Your task to perform on an android device: Go to eBay Image 0: 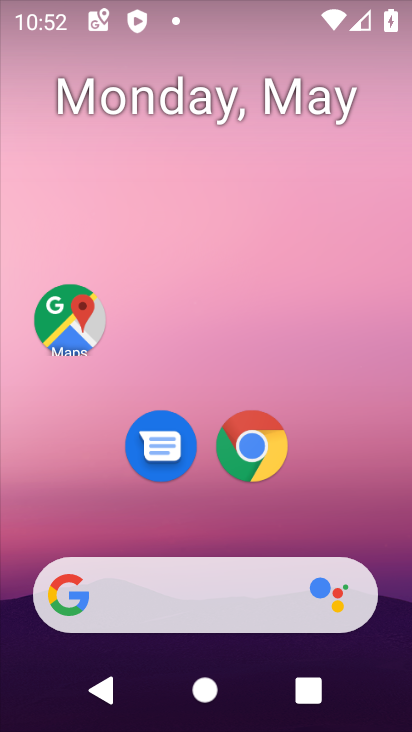
Step 0: click (247, 456)
Your task to perform on an android device: Go to eBay Image 1: 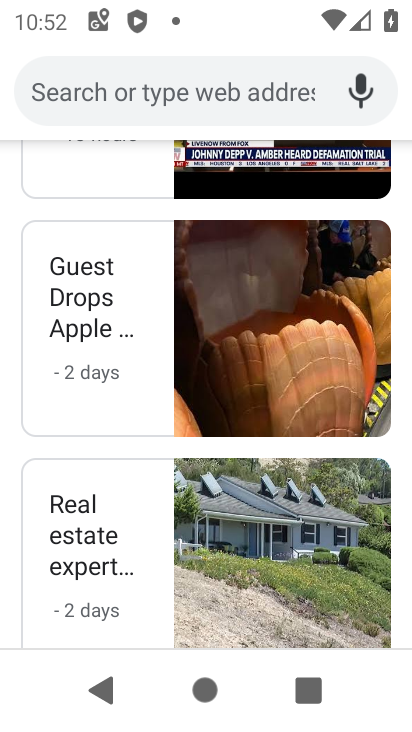
Step 1: drag from (125, 211) to (126, 676)
Your task to perform on an android device: Go to eBay Image 2: 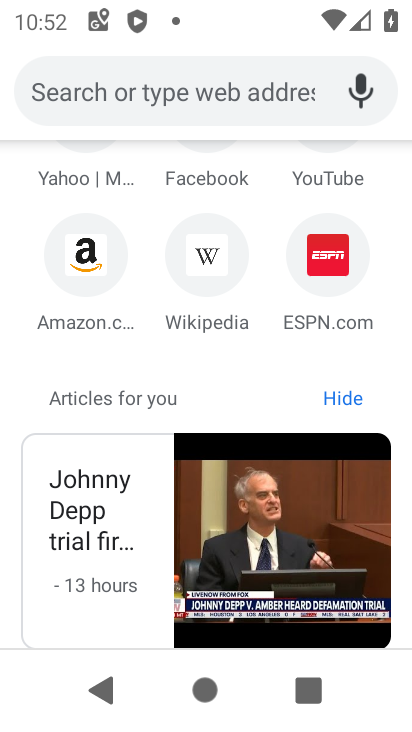
Step 2: drag from (162, 190) to (207, 712)
Your task to perform on an android device: Go to eBay Image 3: 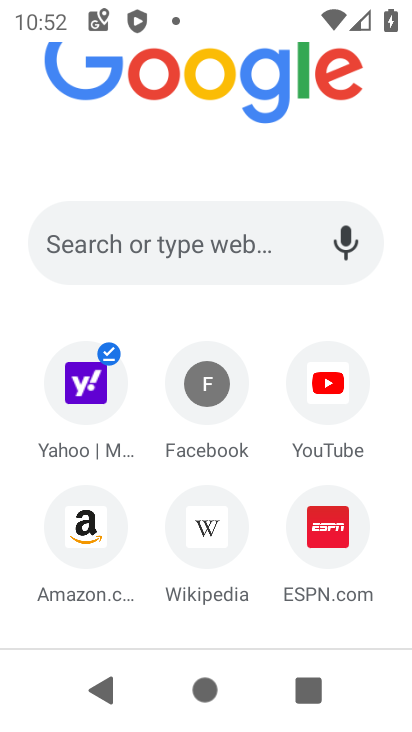
Step 3: drag from (209, 592) to (225, 213)
Your task to perform on an android device: Go to eBay Image 4: 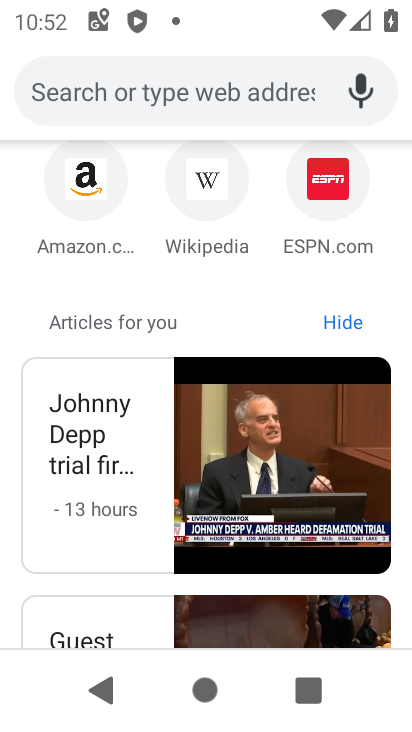
Step 4: click (188, 97)
Your task to perform on an android device: Go to eBay Image 5: 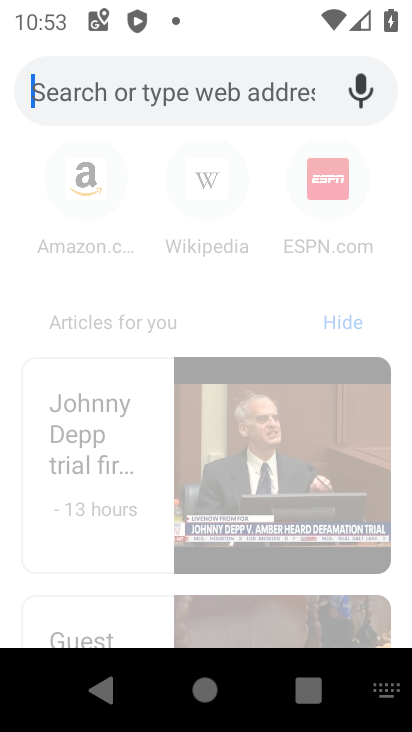
Step 5: type "ebay"
Your task to perform on an android device: Go to eBay Image 6: 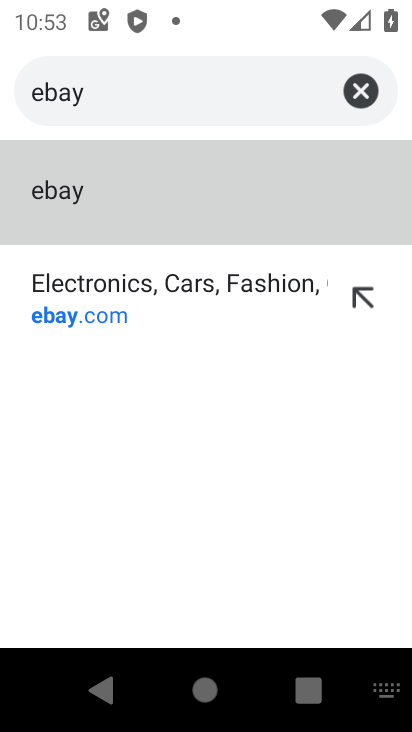
Step 6: click (77, 214)
Your task to perform on an android device: Go to eBay Image 7: 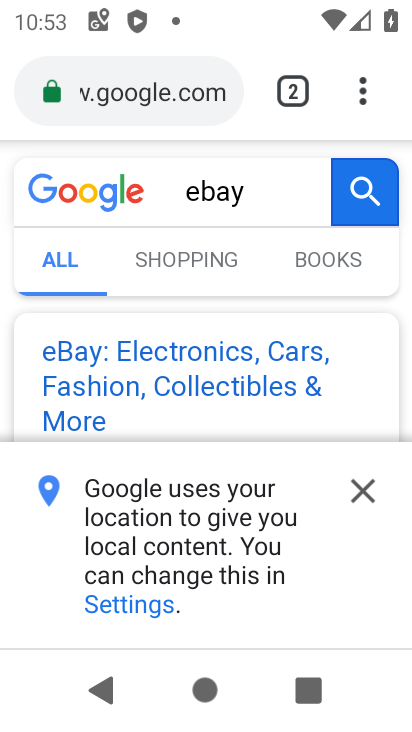
Step 7: click (353, 502)
Your task to perform on an android device: Go to eBay Image 8: 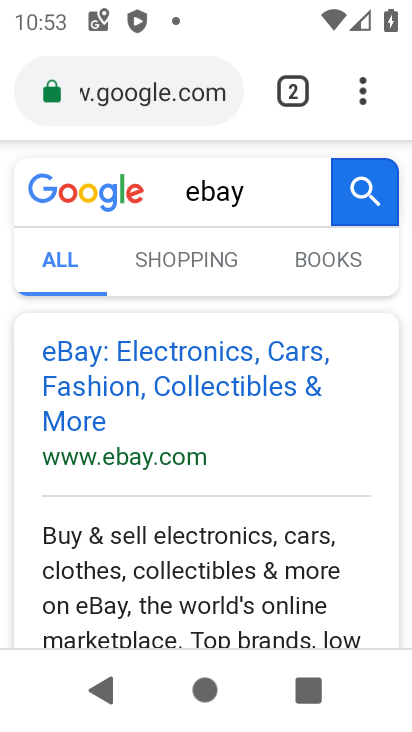
Step 8: click (115, 385)
Your task to perform on an android device: Go to eBay Image 9: 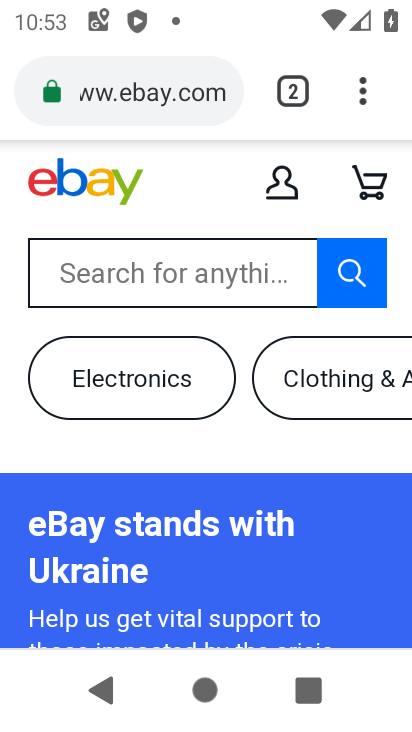
Step 9: task complete